Your task to perform on an android device: turn off notifications settings in the gmail app Image 0: 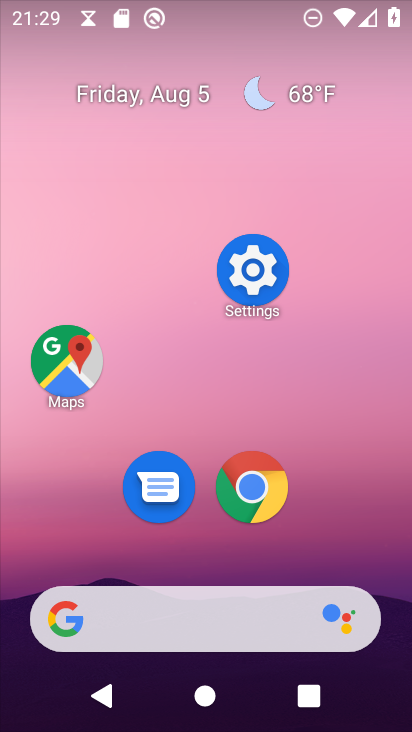
Step 0: drag from (188, 616) to (351, 92)
Your task to perform on an android device: turn off notifications settings in the gmail app Image 1: 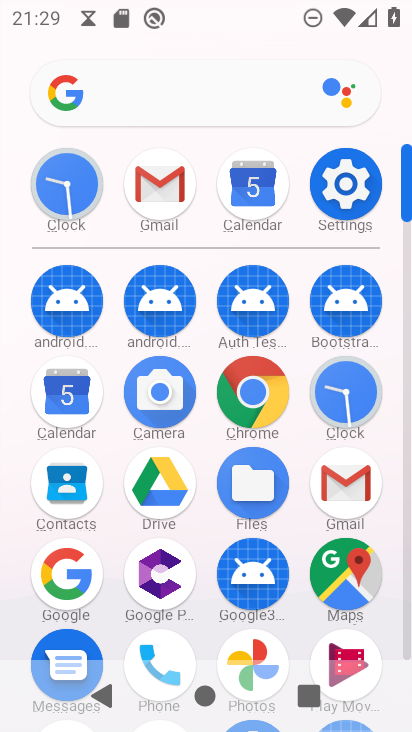
Step 1: click (156, 190)
Your task to perform on an android device: turn off notifications settings in the gmail app Image 2: 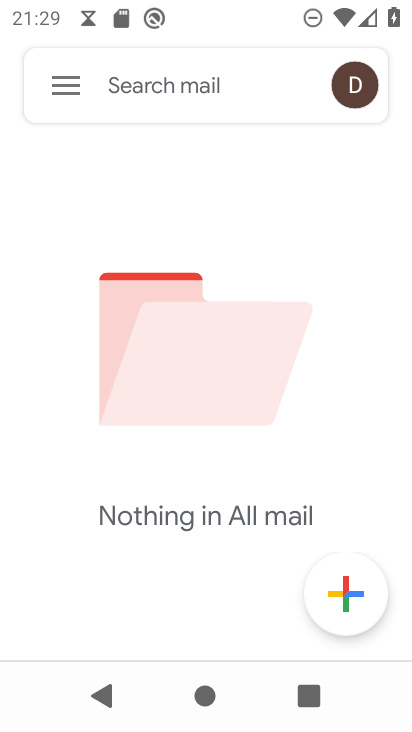
Step 2: click (66, 83)
Your task to perform on an android device: turn off notifications settings in the gmail app Image 3: 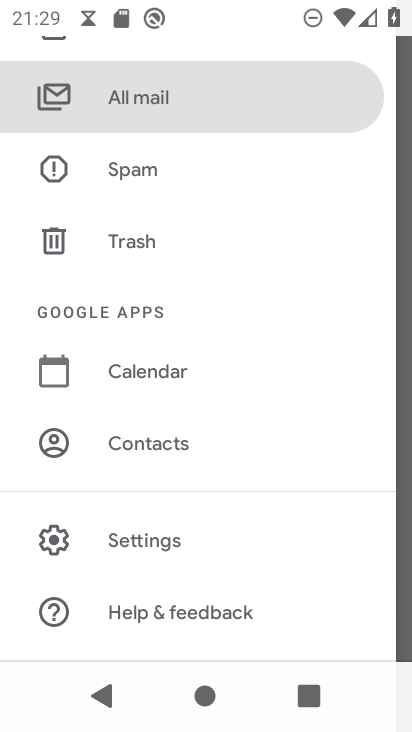
Step 3: click (161, 542)
Your task to perform on an android device: turn off notifications settings in the gmail app Image 4: 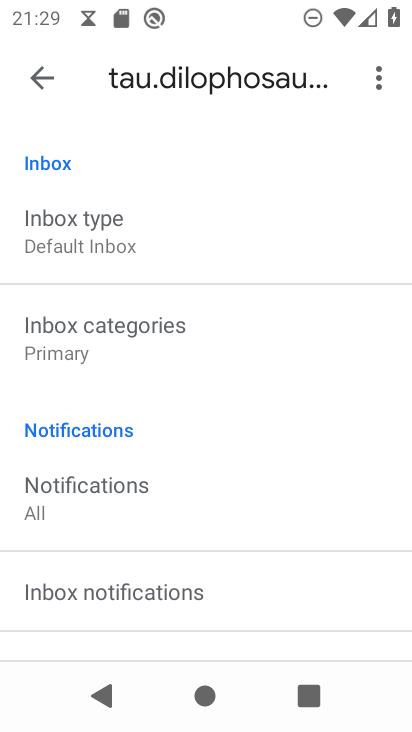
Step 4: click (98, 463)
Your task to perform on an android device: turn off notifications settings in the gmail app Image 5: 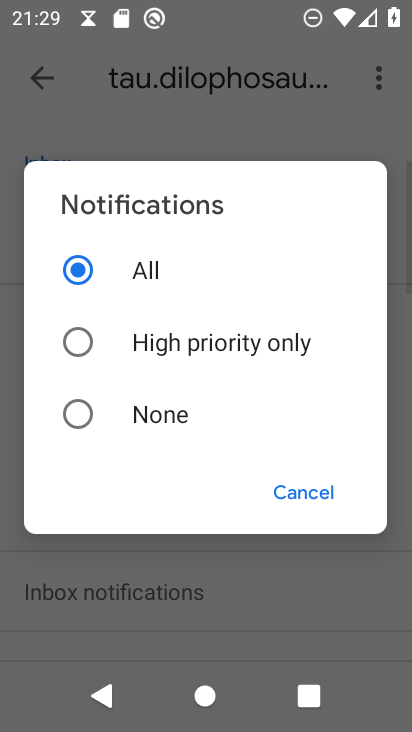
Step 5: click (78, 410)
Your task to perform on an android device: turn off notifications settings in the gmail app Image 6: 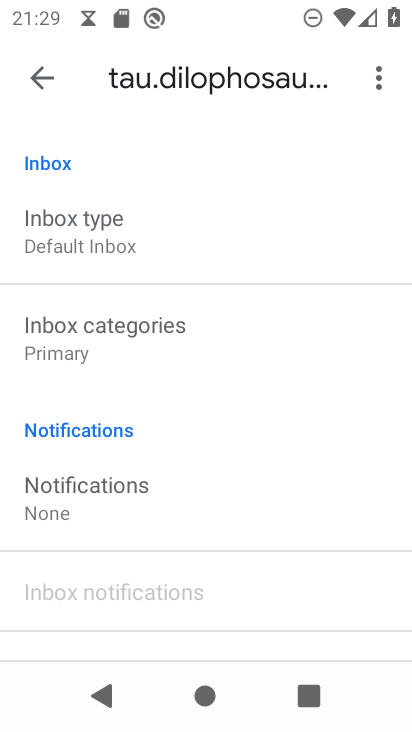
Step 6: task complete